Your task to perform on an android device: Search for sushi restaurants on Maps Image 0: 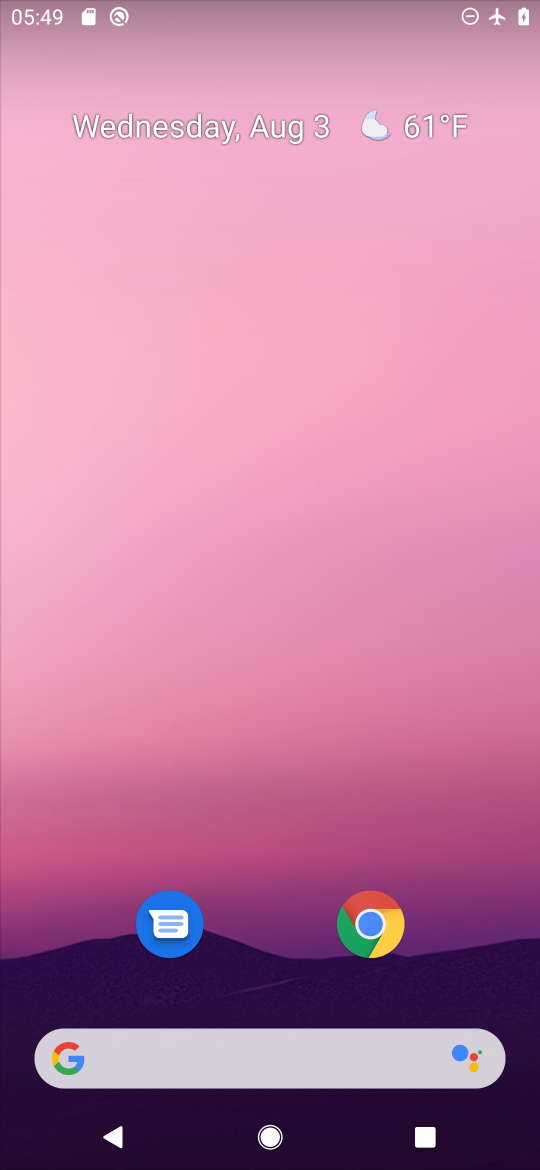
Step 0: drag from (272, 777) to (270, 267)
Your task to perform on an android device: Search for sushi restaurants on Maps Image 1: 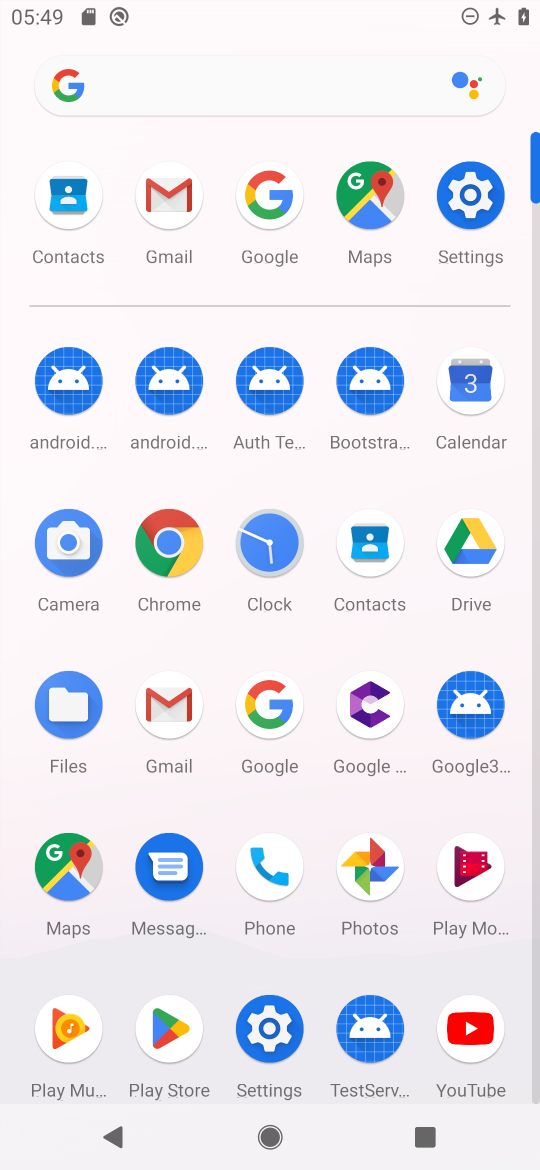
Step 1: click (368, 216)
Your task to perform on an android device: Search for sushi restaurants on Maps Image 2: 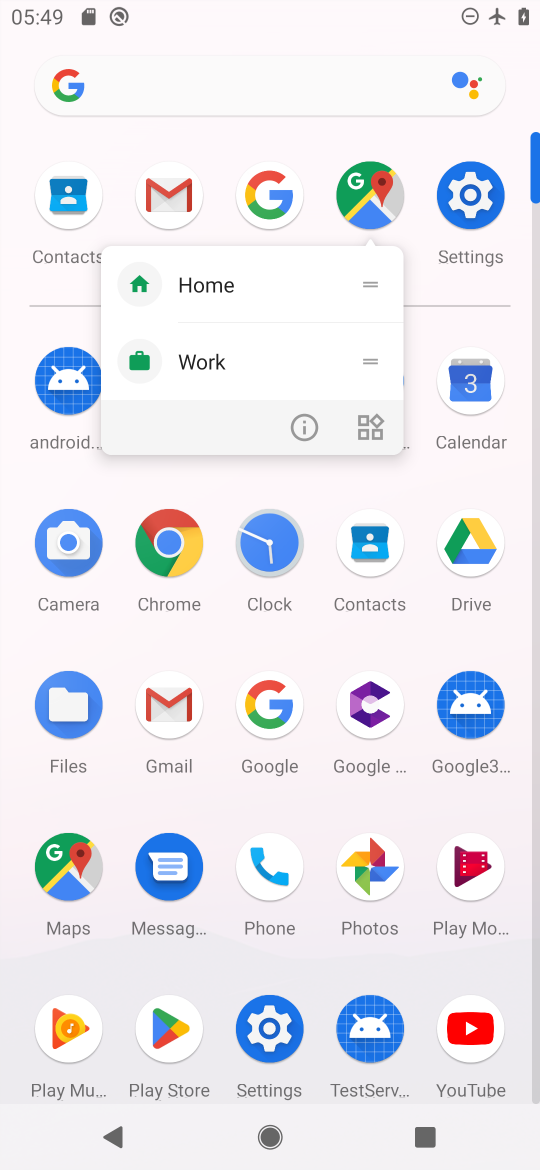
Step 2: click (347, 189)
Your task to perform on an android device: Search for sushi restaurants on Maps Image 3: 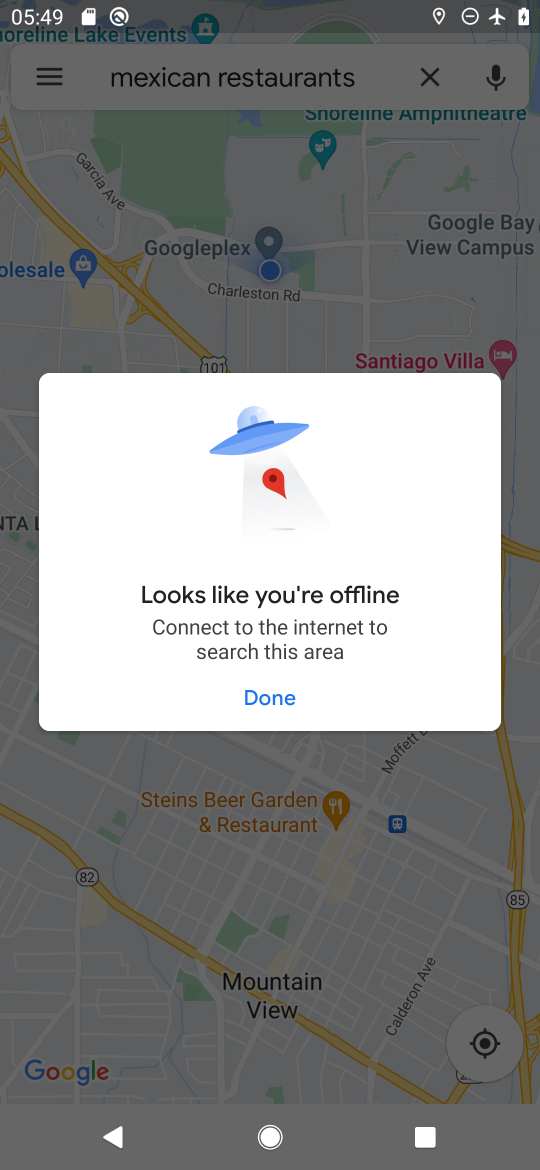
Step 3: task complete